Your task to perform on an android device: install app "DoorDash - Dasher" Image 0: 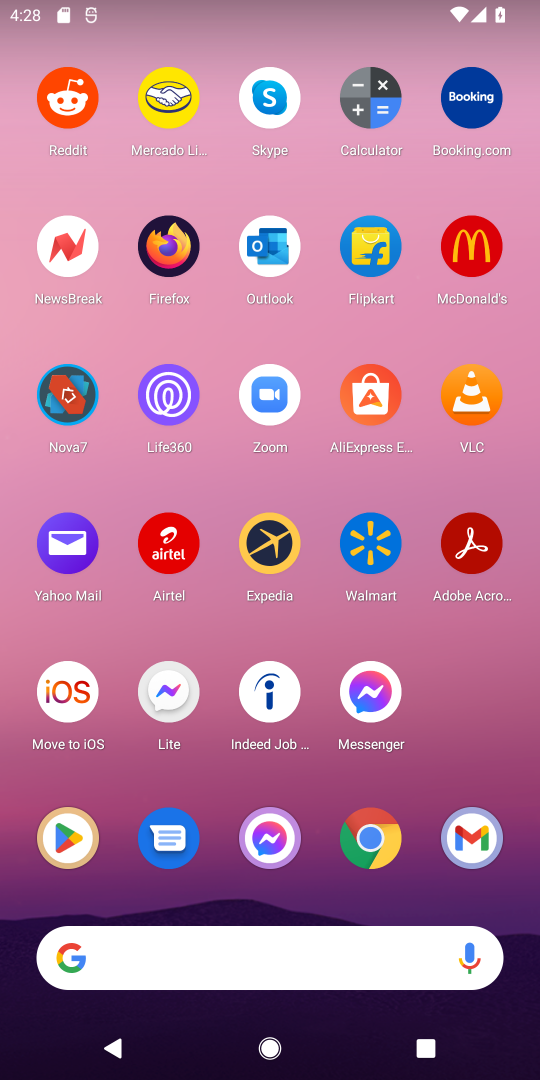
Step 0: click (80, 831)
Your task to perform on an android device: install app "DoorDash - Dasher" Image 1: 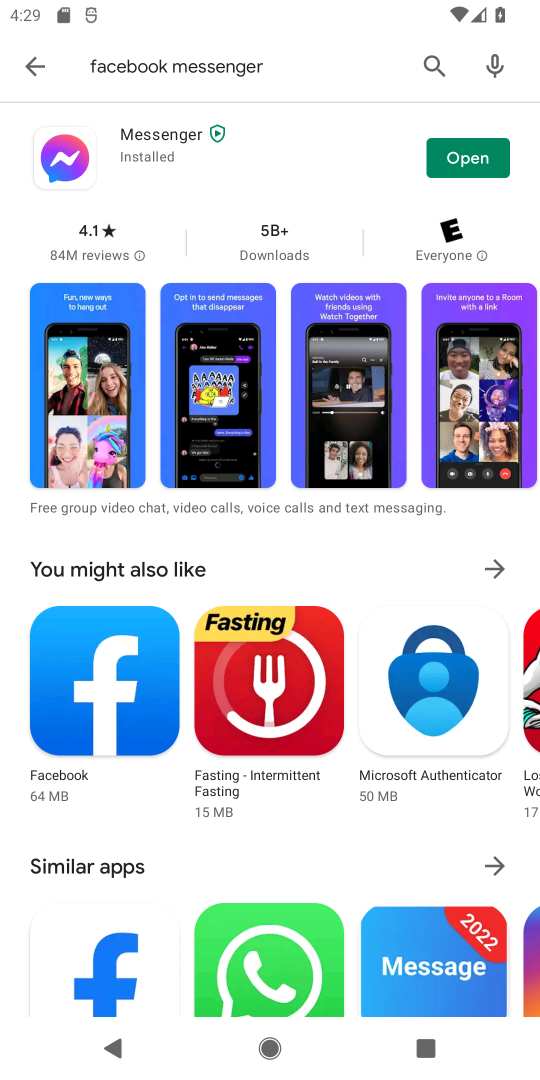
Step 1: click (446, 59)
Your task to perform on an android device: install app "DoorDash - Dasher" Image 2: 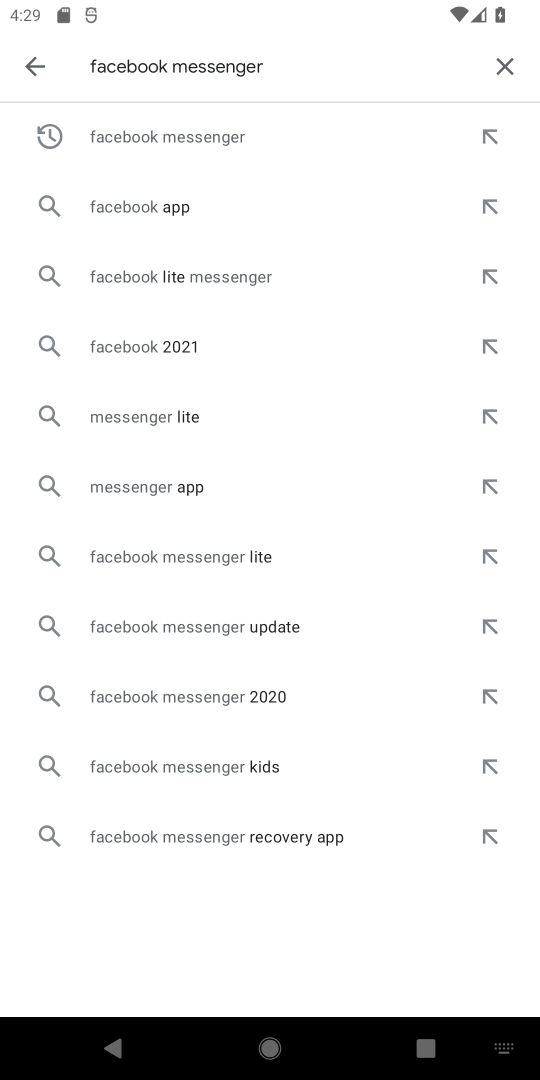
Step 2: click (500, 59)
Your task to perform on an android device: install app "DoorDash - Dasher" Image 3: 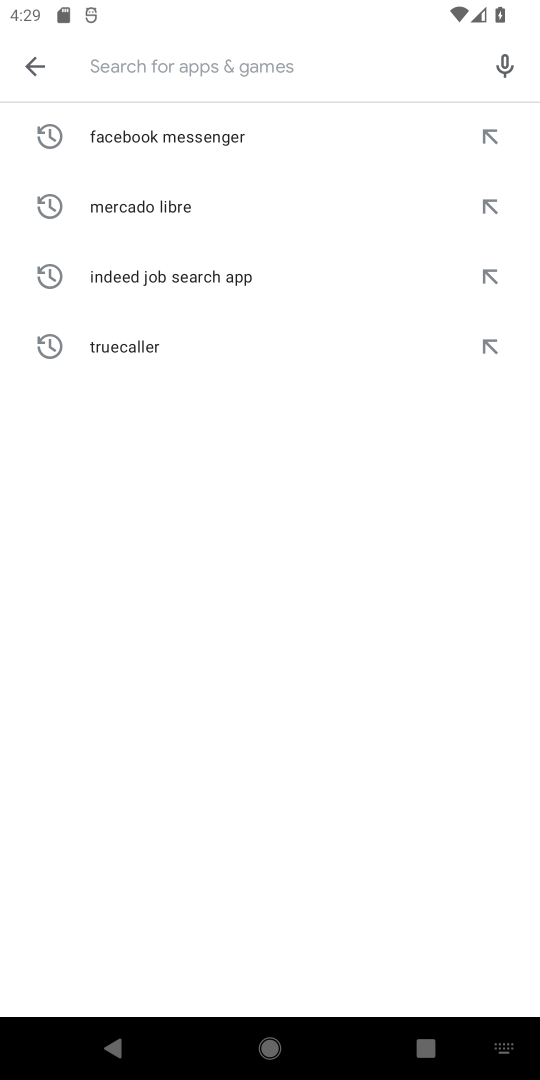
Step 3: click (330, 104)
Your task to perform on an android device: install app "DoorDash - Dasher" Image 4: 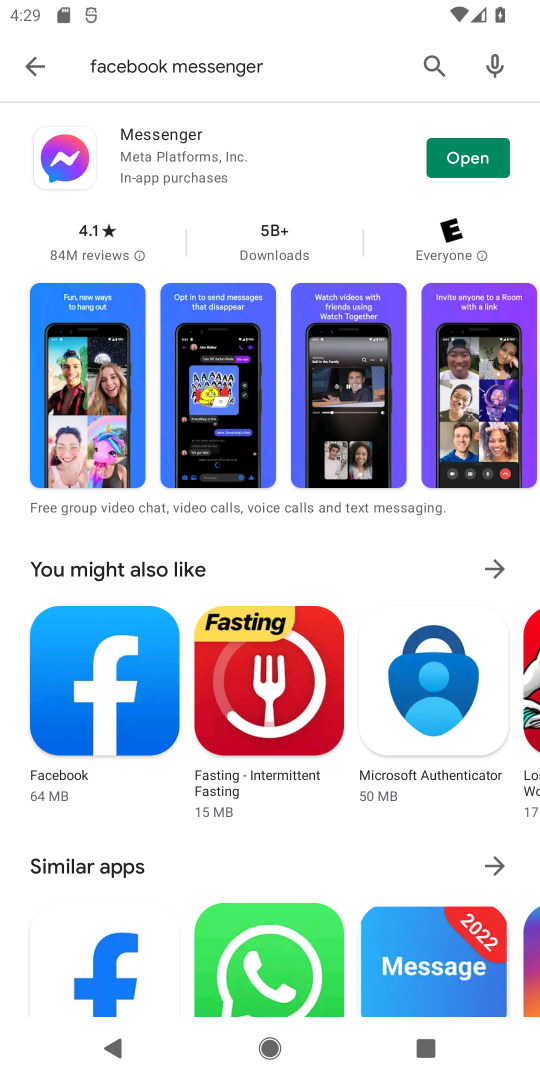
Step 4: click (440, 77)
Your task to perform on an android device: install app "DoorDash - Dasher" Image 5: 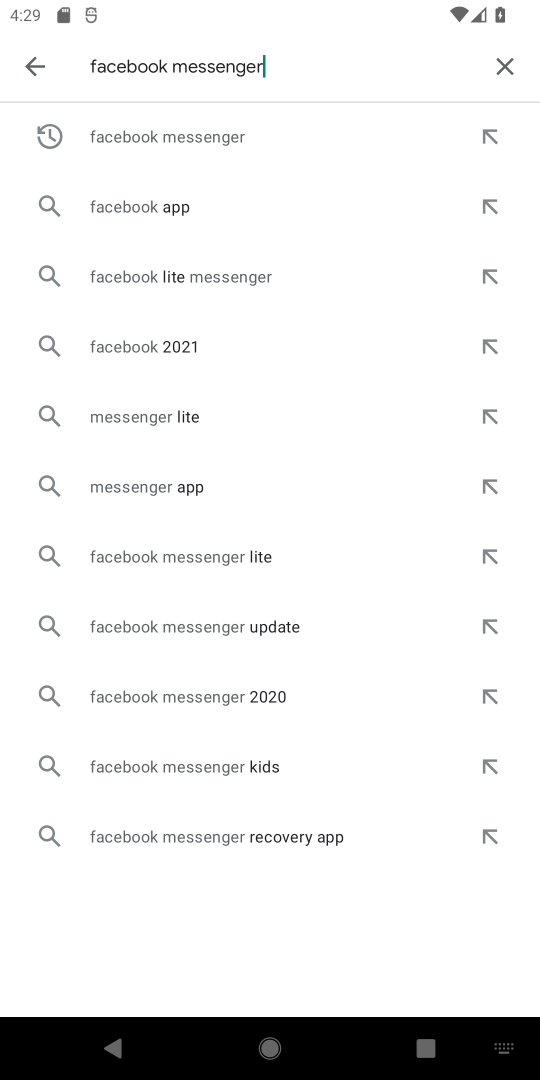
Step 5: click (491, 52)
Your task to perform on an android device: install app "DoorDash - Dasher" Image 6: 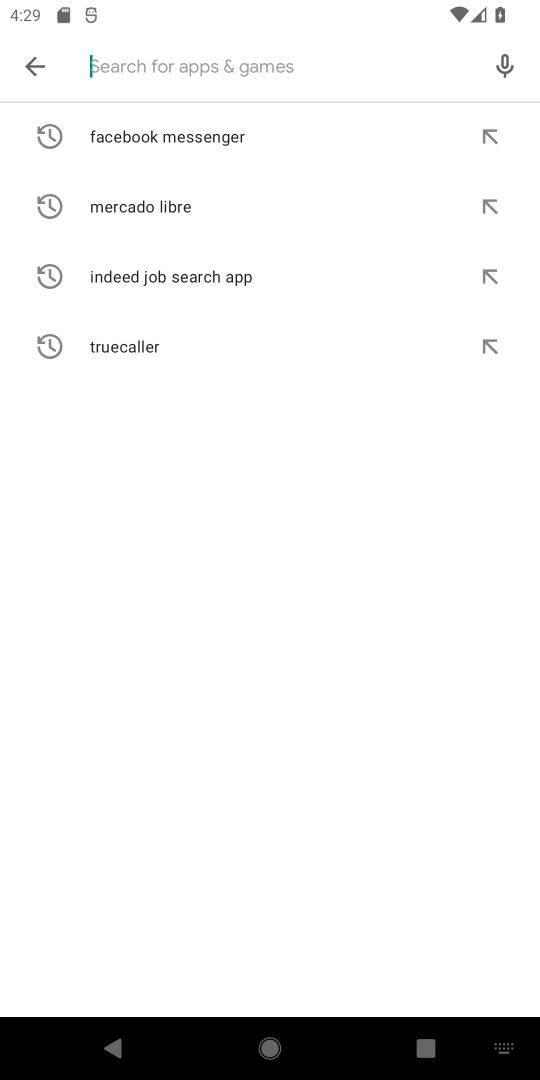
Step 6: type "DoorDash - Dasher"
Your task to perform on an android device: install app "DoorDash - Dasher" Image 7: 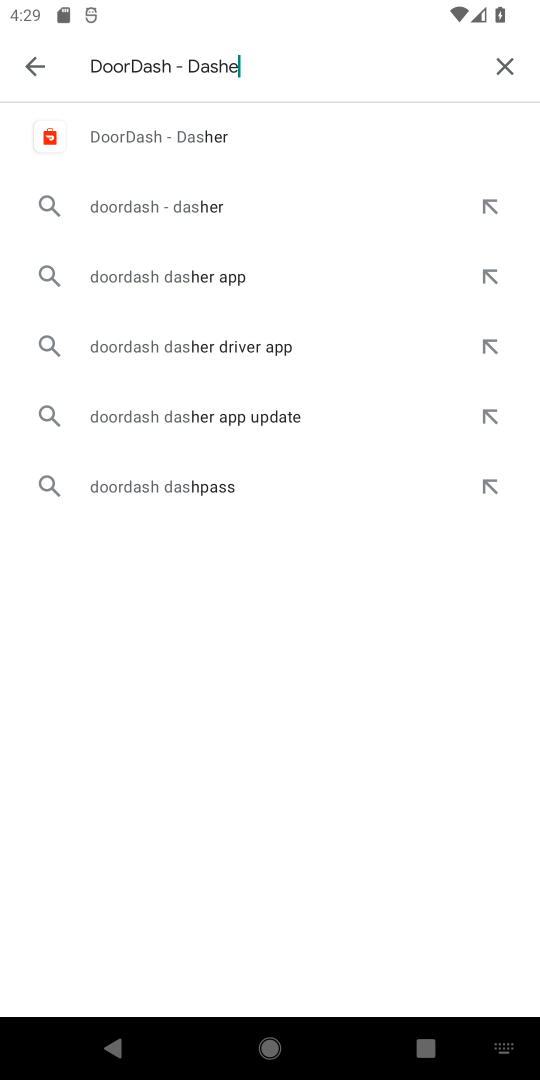
Step 7: type ""
Your task to perform on an android device: install app "DoorDash - Dasher" Image 8: 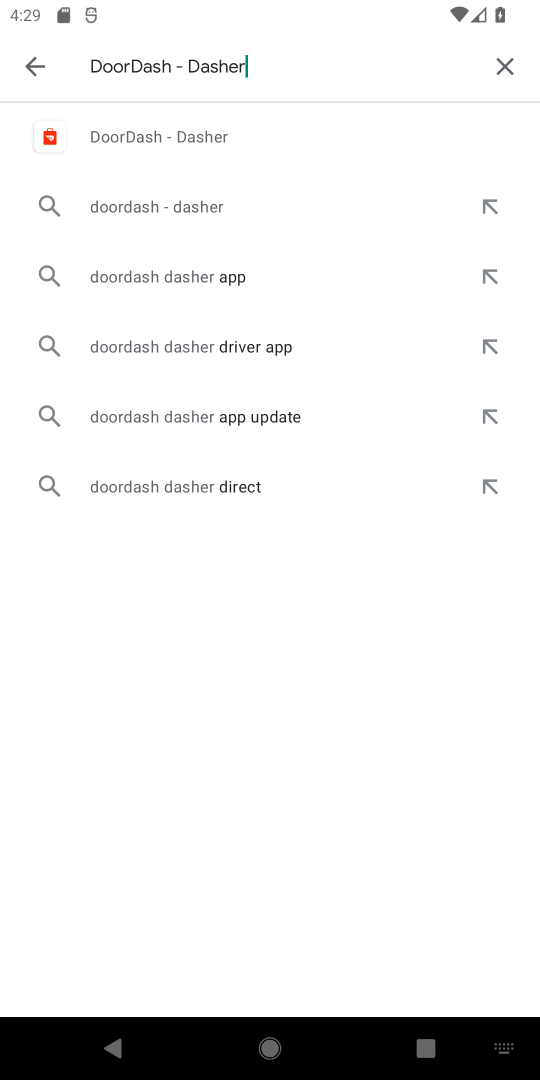
Step 8: click (270, 142)
Your task to perform on an android device: install app "DoorDash - Dasher" Image 9: 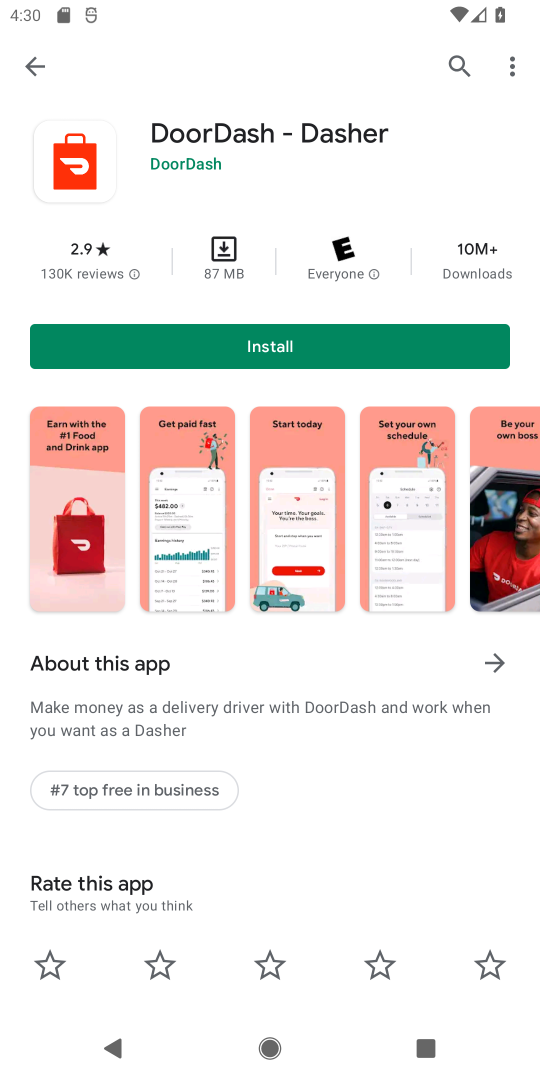
Step 9: click (263, 353)
Your task to perform on an android device: install app "DoorDash - Dasher" Image 10: 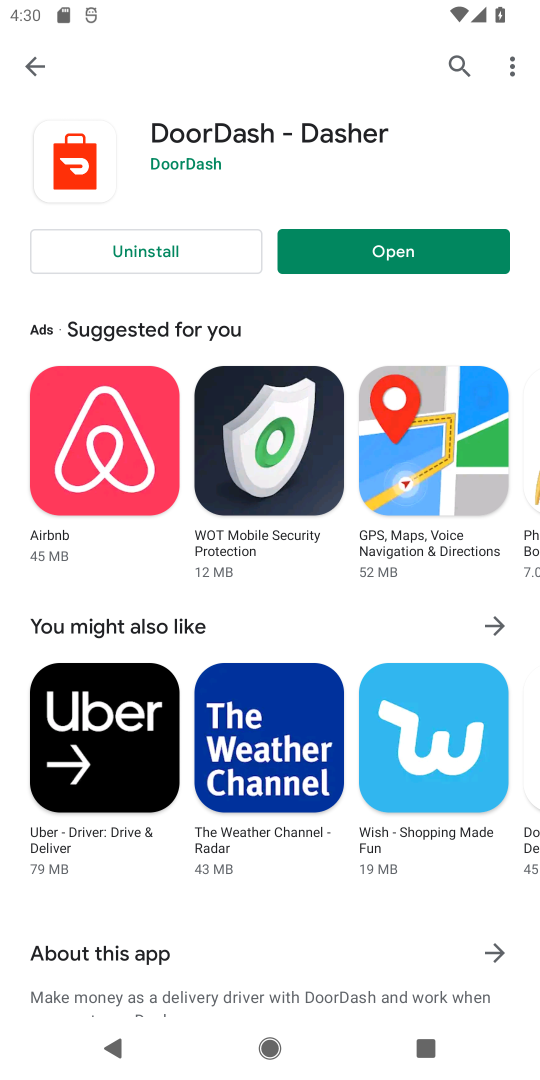
Step 10: task complete